Your task to perform on an android device: check battery use Image 0: 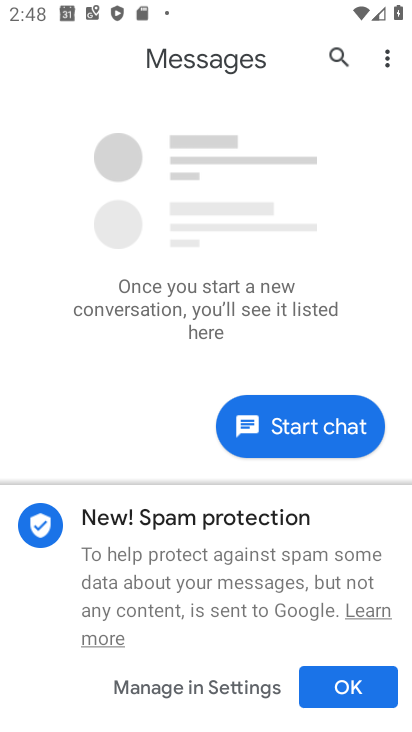
Step 0: press back button
Your task to perform on an android device: check battery use Image 1: 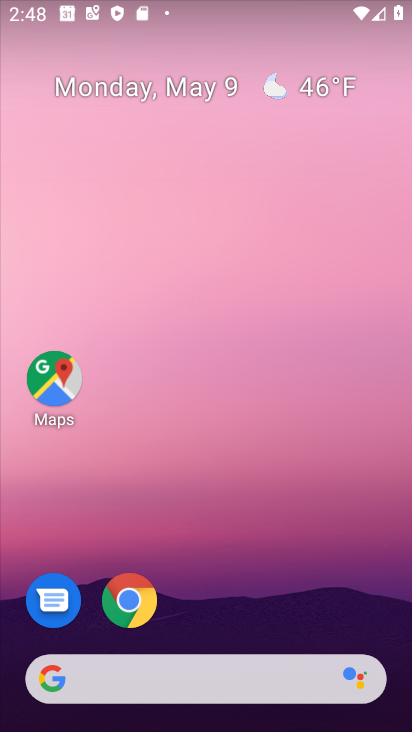
Step 1: drag from (267, 641) to (281, 440)
Your task to perform on an android device: check battery use Image 2: 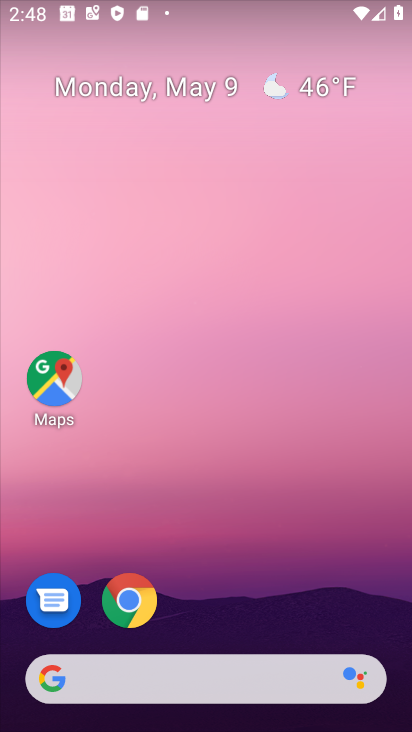
Step 2: drag from (240, 638) to (270, 518)
Your task to perform on an android device: check battery use Image 3: 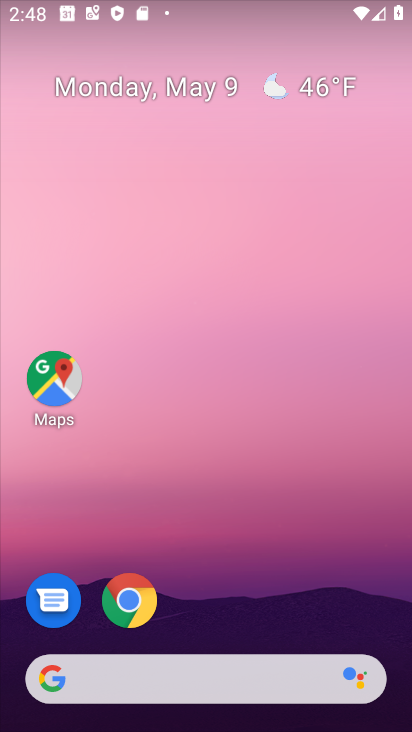
Step 3: drag from (238, 624) to (288, 373)
Your task to perform on an android device: check battery use Image 4: 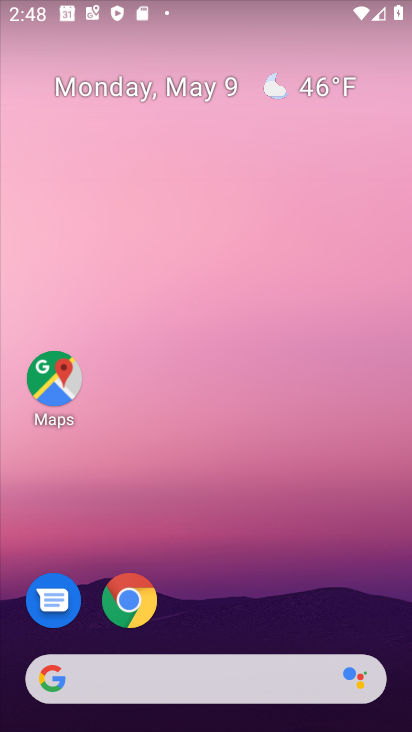
Step 4: drag from (267, 629) to (402, 82)
Your task to perform on an android device: check battery use Image 5: 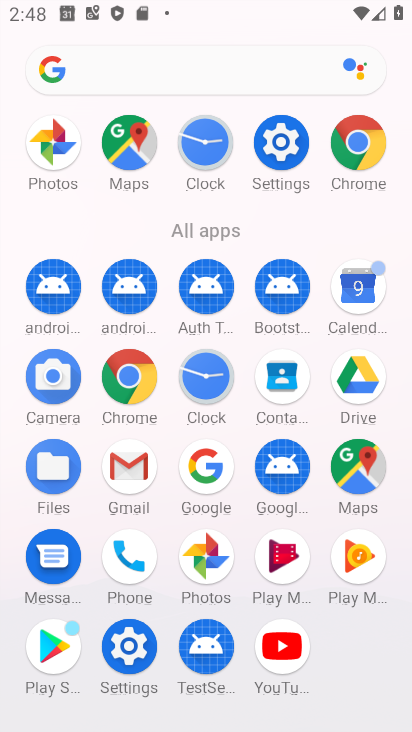
Step 5: click (138, 658)
Your task to perform on an android device: check battery use Image 6: 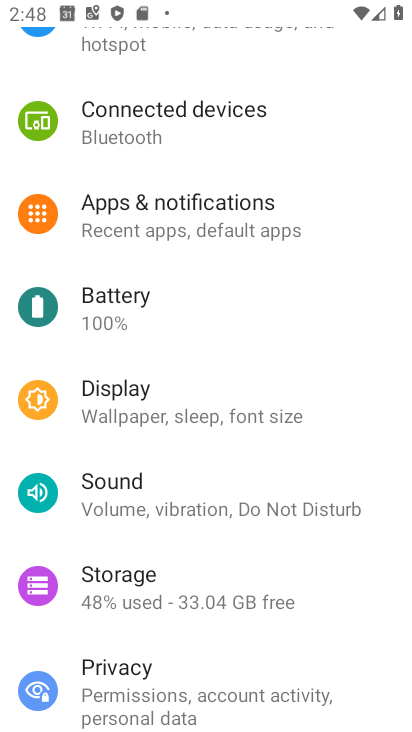
Step 6: drag from (158, 531) to (260, 310)
Your task to perform on an android device: check battery use Image 7: 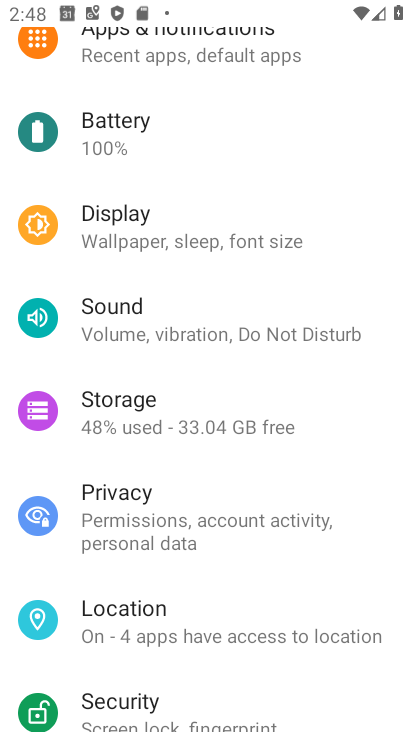
Step 7: drag from (193, 664) to (266, 402)
Your task to perform on an android device: check battery use Image 8: 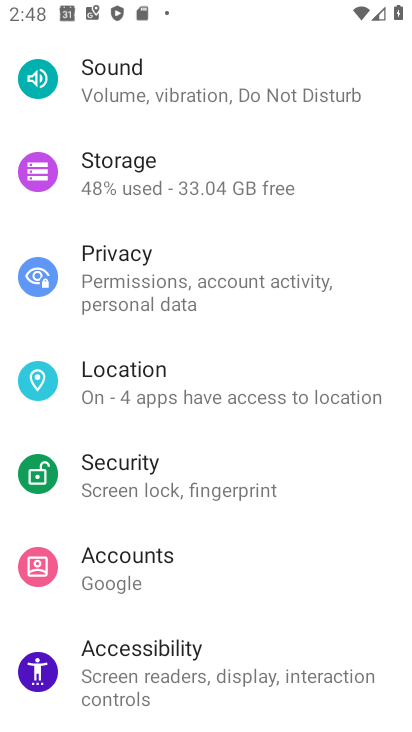
Step 8: drag from (227, 136) to (220, 484)
Your task to perform on an android device: check battery use Image 9: 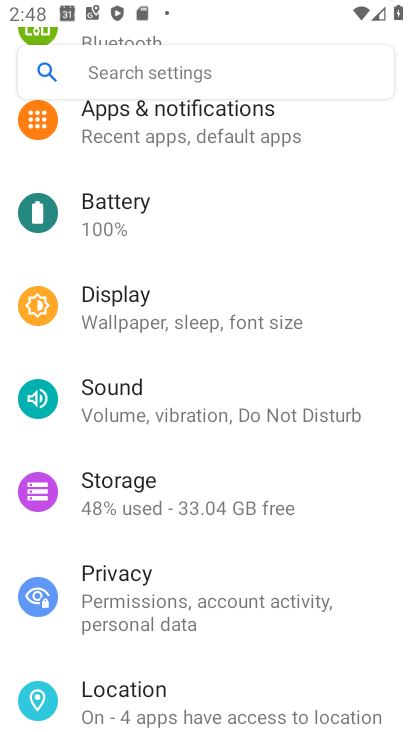
Step 9: drag from (237, 152) to (244, 396)
Your task to perform on an android device: check battery use Image 10: 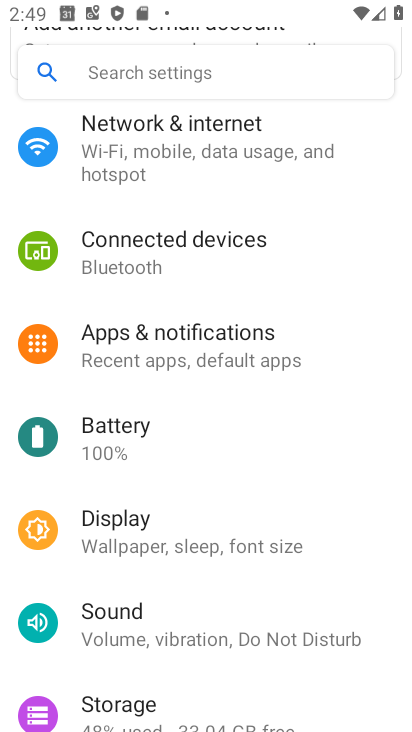
Step 10: click (221, 445)
Your task to perform on an android device: check battery use Image 11: 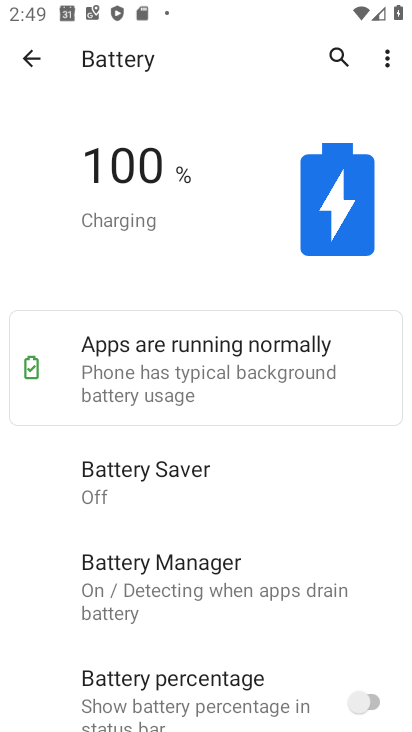
Step 11: click (393, 65)
Your task to perform on an android device: check battery use Image 12: 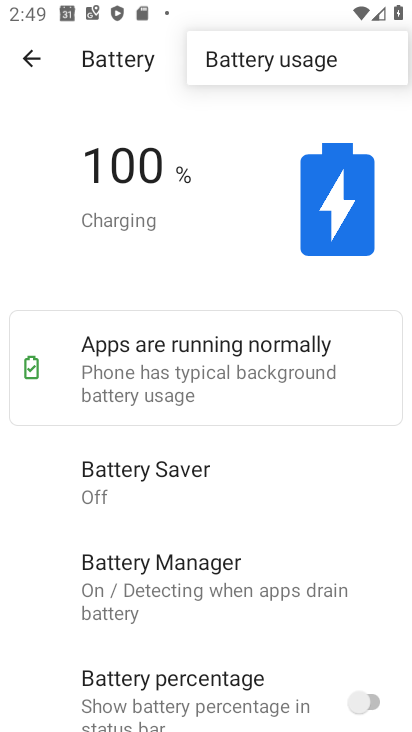
Step 12: click (389, 67)
Your task to perform on an android device: check battery use Image 13: 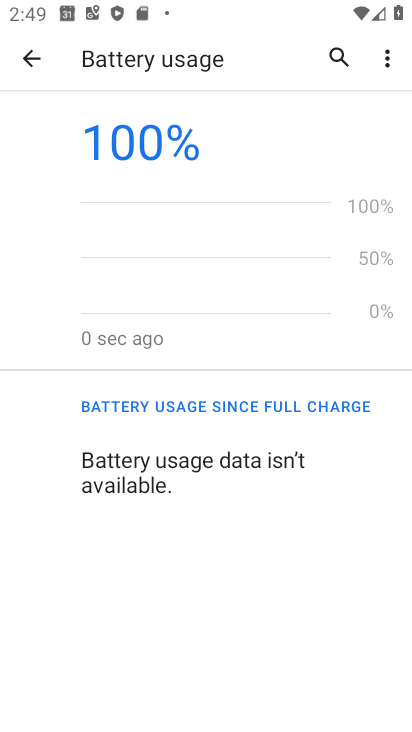
Step 13: task complete